Your task to perform on an android device: Go to calendar. Show me events next week Image 0: 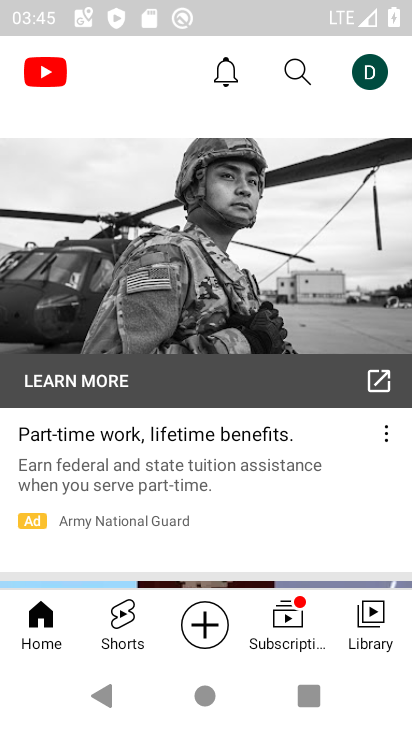
Step 0: press home button
Your task to perform on an android device: Go to calendar. Show me events next week Image 1: 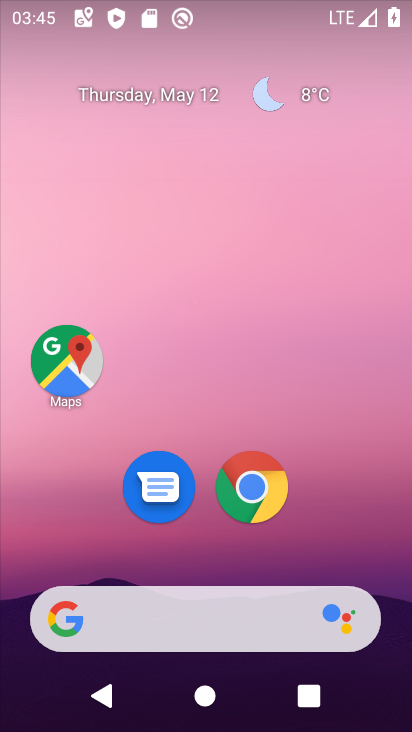
Step 1: drag from (334, 410) to (319, 64)
Your task to perform on an android device: Go to calendar. Show me events next week Image 2: 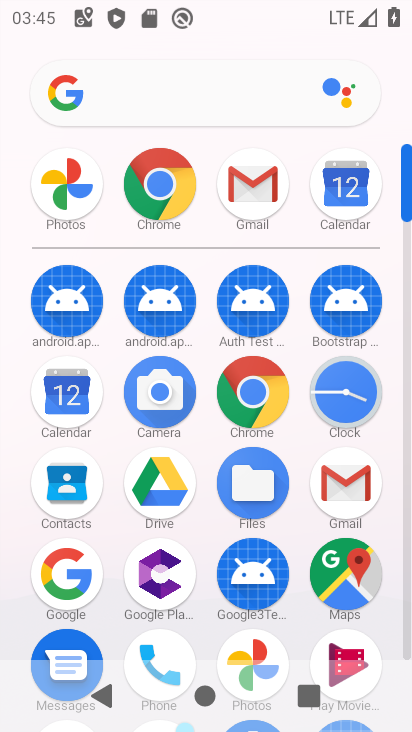
Step 2: click (76, 396)
Your task to perform on an android device: Go to calendar. Show me events next week Image 3: 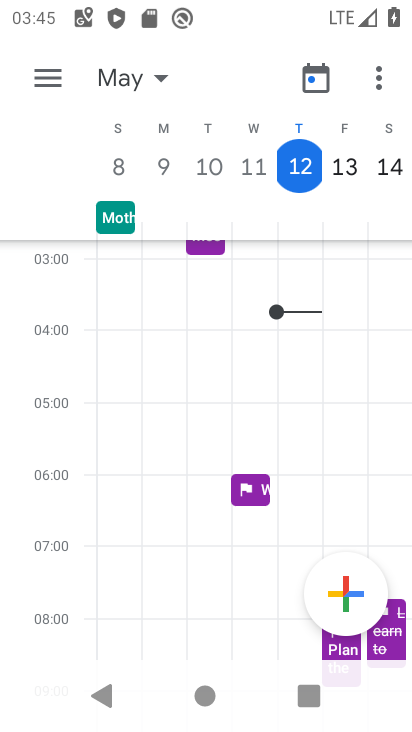
Step 3: task complete